Your task to perform on an android device: check data usage Image 0: 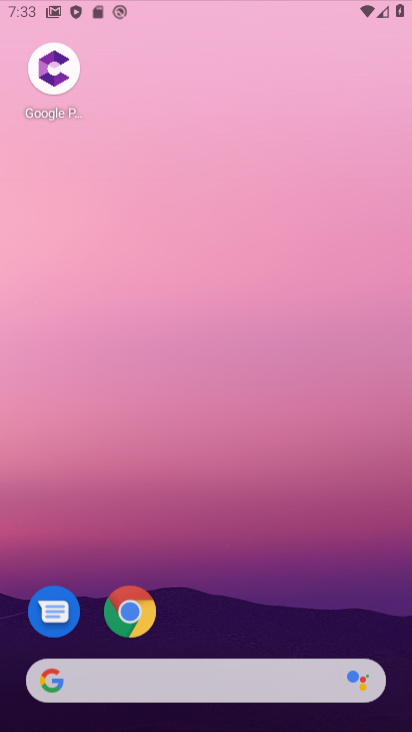
Step 0: click (191, 92)
Your task to perform on an android device: check data usage Image 1: 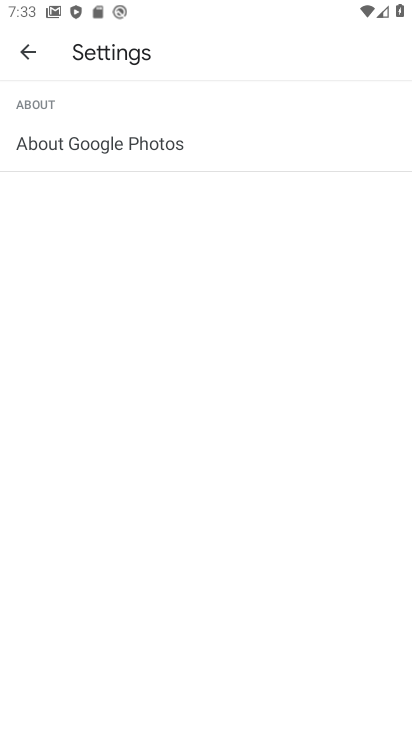
Step 1: drag from (235, 6) to (177, 561)
Your task to perform on an android device: check data usage Image 2: 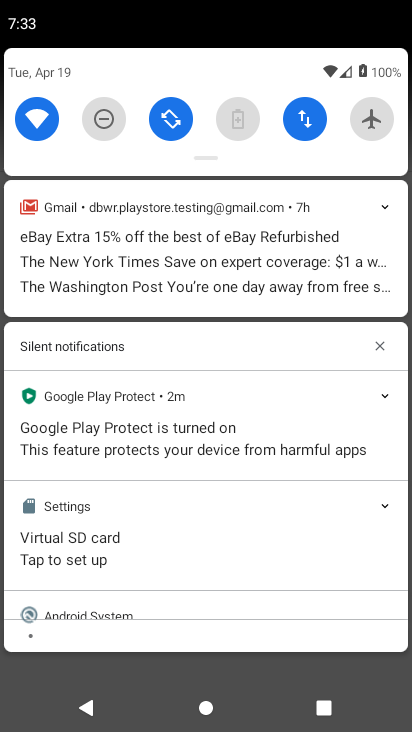
Step 2: drag from (205, 76) to (270, 699)
Your task to perform on an android device: check data usage Image 3: 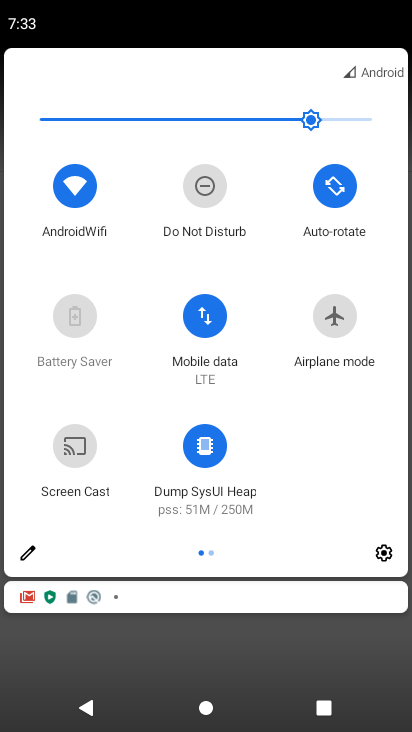
Step 3: click (386, 547)
Your task to perform on an android device: check data usage Image 4: 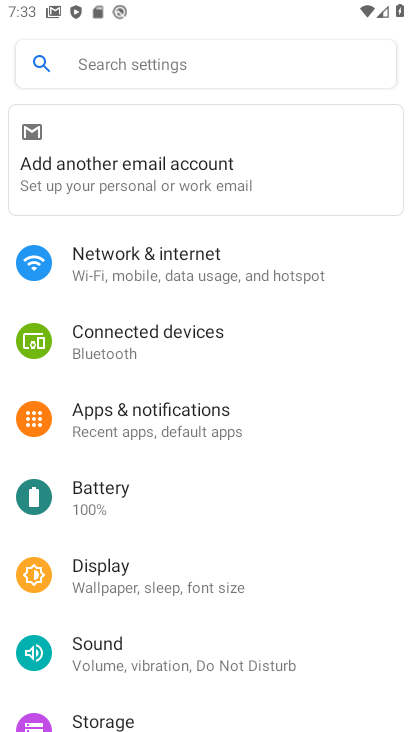
Step 4: click (210, 261)
Your task to perform on an android device: check data usage Image 5: 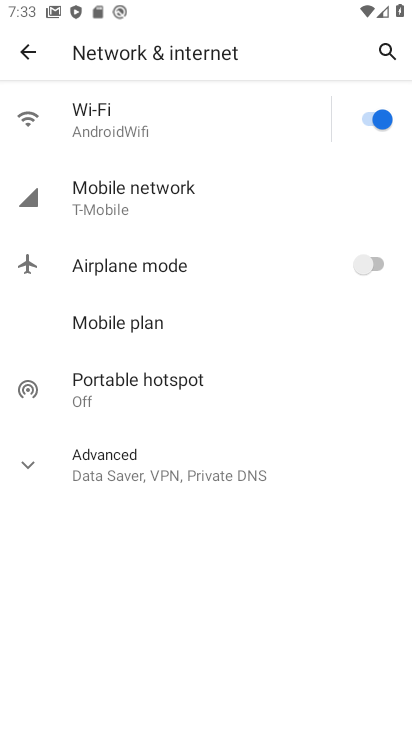
Step 5: click (168, 214)
Your task to perform on an android device: check data usage Image 6: 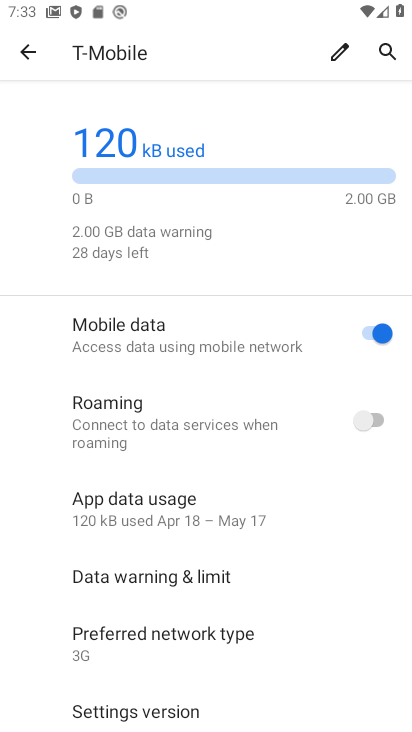
Step 6: task complete